Your task to perform on an android device: change the clock style Image 0: 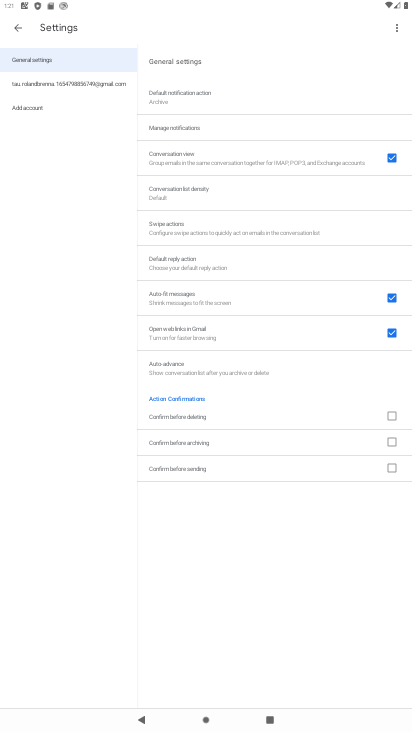
Step 0: task complete